Your task to perform on an android device: remove spam from my inbox in the gmail app Image 0: 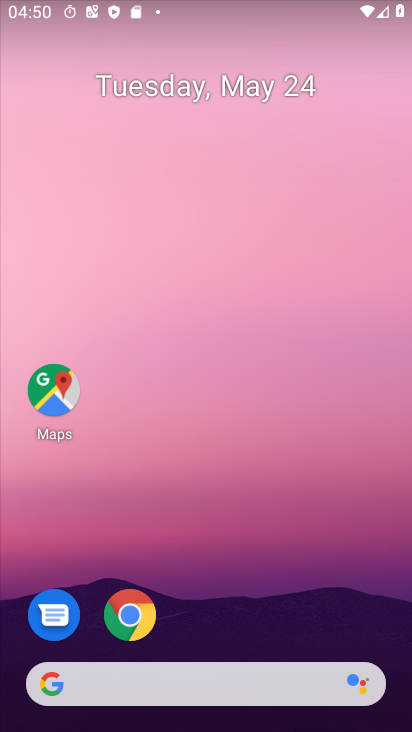
Step 0: drag from (255, 641) to (225, 153)
Your task to perform on an android device: remove spam from my inbox in the gmail app Image 1: 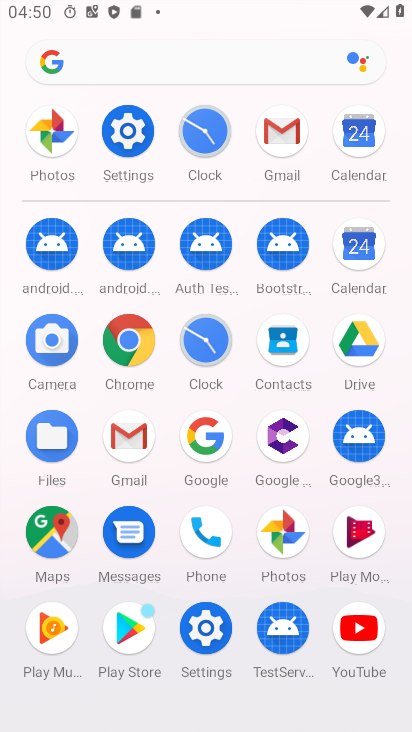
Step 1: click (284, 132)
Your task to perform on an android device: remove spam from my inbox in the gmail app Image 2: 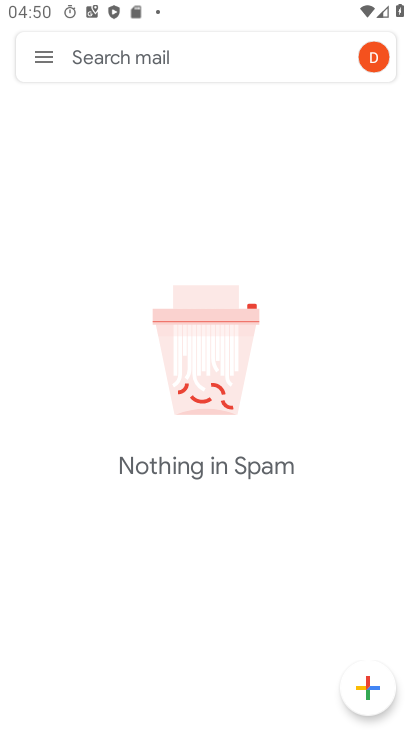
Step 2: click (36, 50)
Your task to perform on an android device: remove spam from my inbox in the gmail app Image 3: 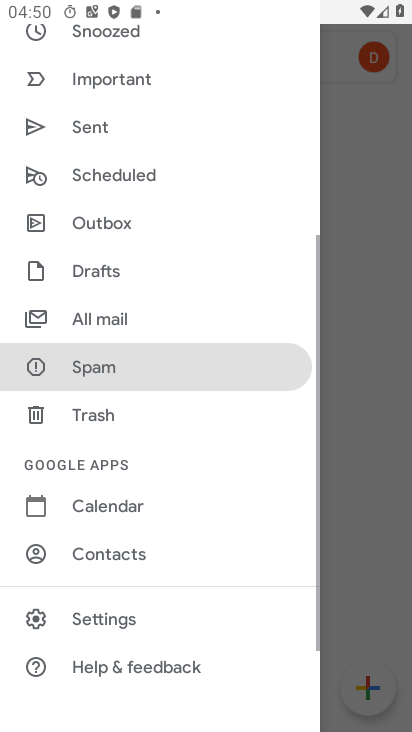
Step 3: click (117, 361)
Your task to perform on an android device: remove spam from my inbox in the gmail app Image 4: 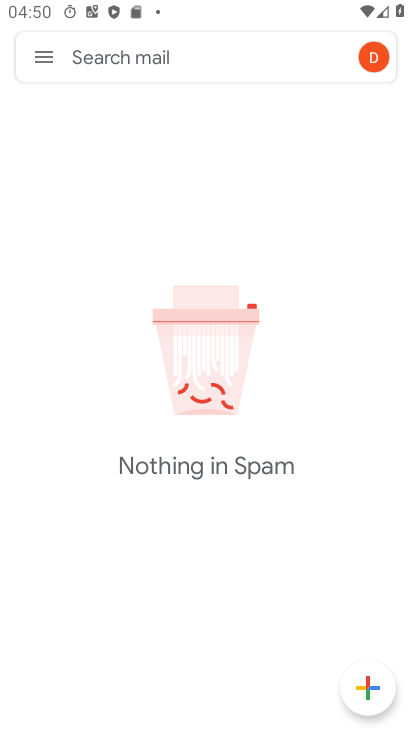
Step 4: task complete